Your task to perform on an android device: Show me the alarms in the clock app Image 0: 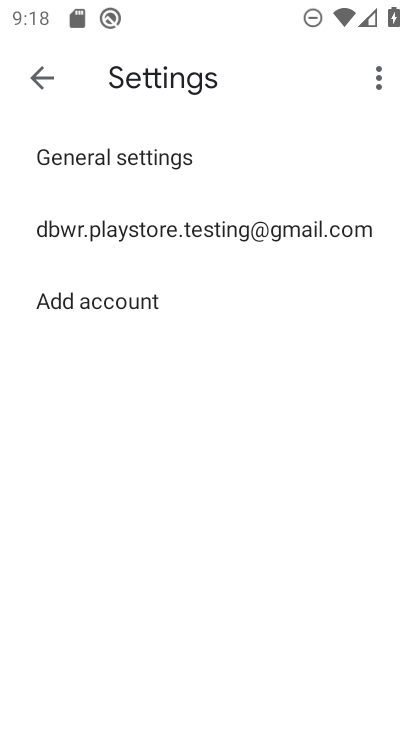
Step 0: press home button
Your task to perform on an android device: Show me the alarms in the clock app Image 1: 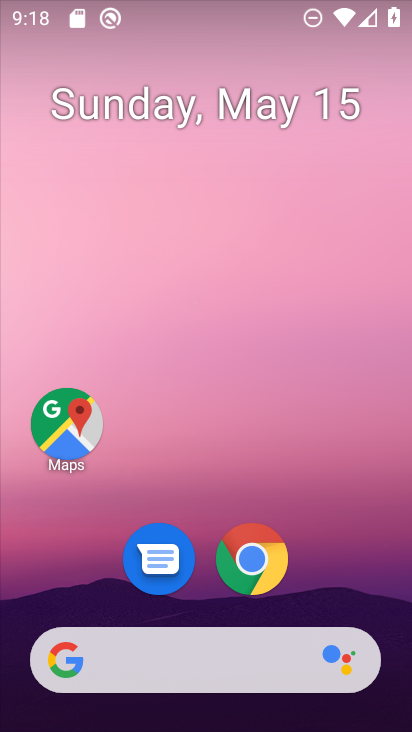
Step 1: drag from (355, 584) to (382, 166)
Your task to perform on an android device: Show me the alarms in the clock app Image 2: 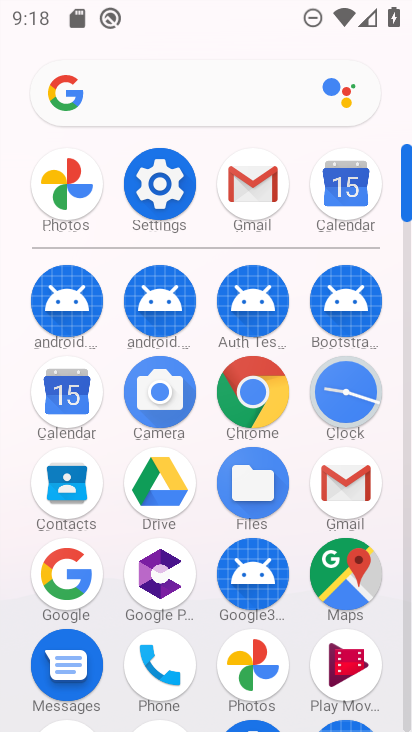
Step 2: click (330, 385)
Your task to perform on an android device: Show me the alarms in the clock app Image 3: 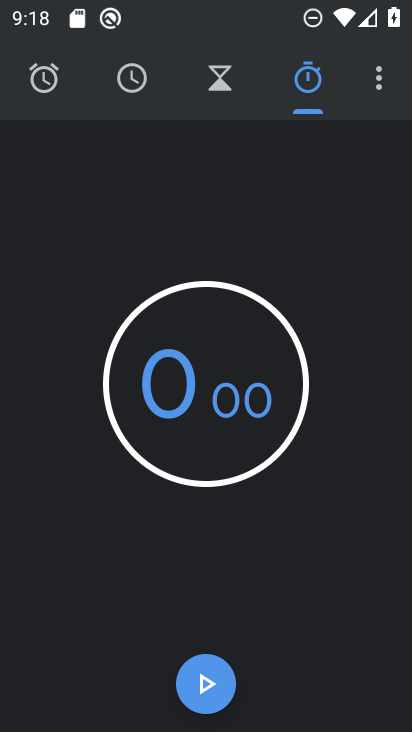
Step 3: click (51, 100)
Your task to perform on an android device: Show me the alarms in the clock app Image 4: 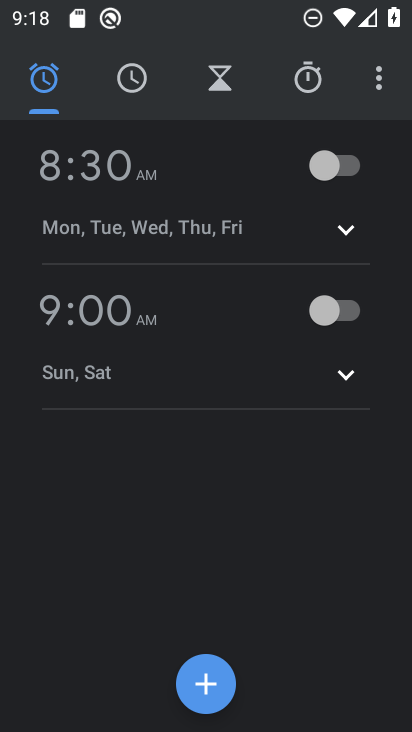
Step 4: click (327, 155)
Your task to perform on an android device: Show me the alarms in the clock app Image 5: 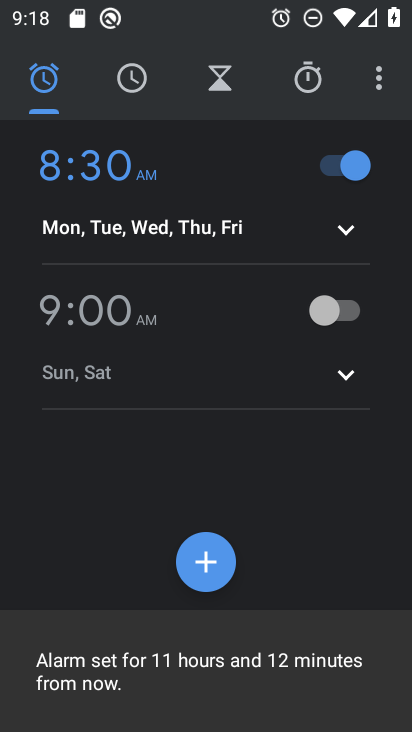
Step 5: task complete